Your task to perform on an android device: Go to wifi settings Image 0: 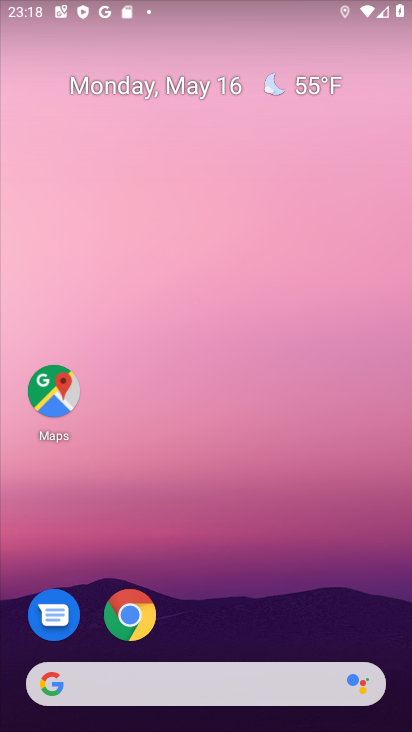
Step 0: drag from (166, 650) to (94, 38)
Your task to perform on an android device: Go to wifi settings Image 1: 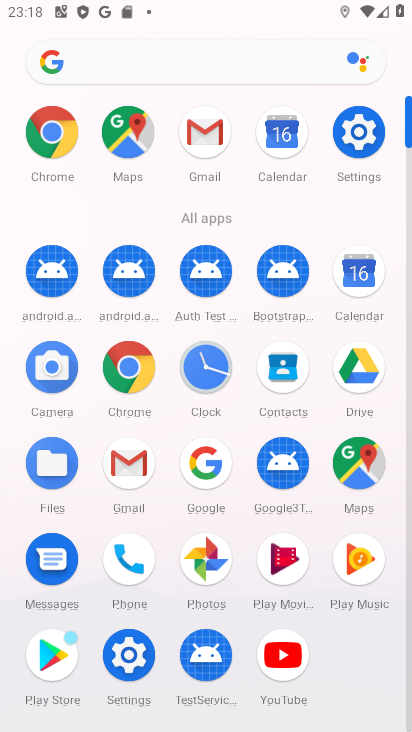
Step 1: click (349, 138)
Your task to perform on an android device: Go to wifi settings Image 2: 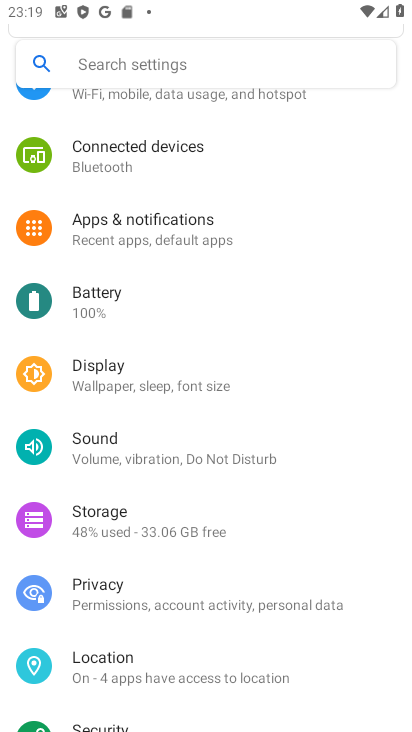
Step 2: drag from (238, 198) to (231, 402)
Your task to perform on an android device: Go to wifi settings Image 3: 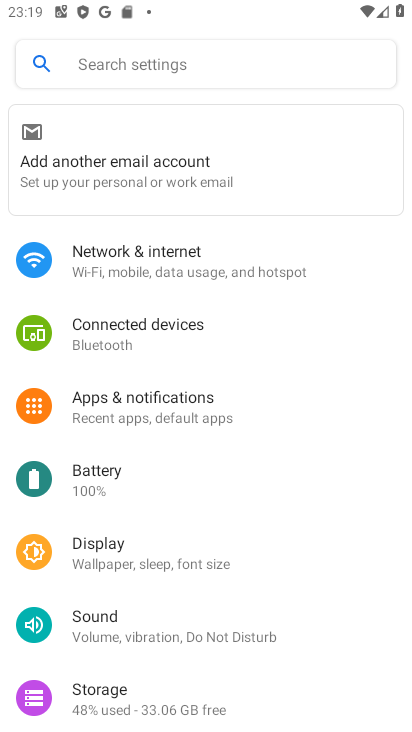
Step 3: click (155, 266)
Your task to perform on an android device: Go to wifi settings Image 4: 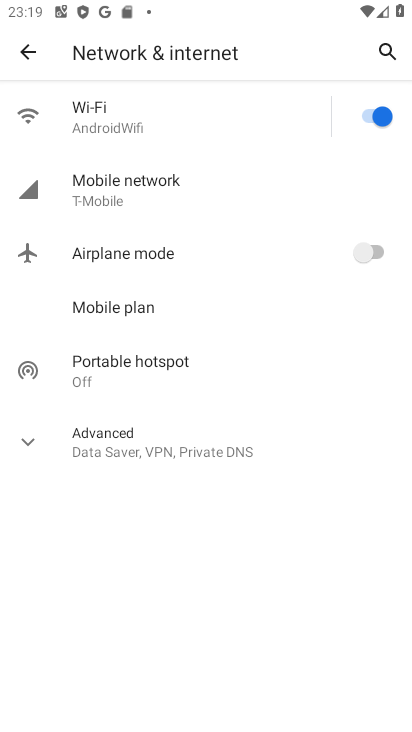
Step 4: click (108, 101)
Your task to perform on an android device: Go to wifi settings Image 5: 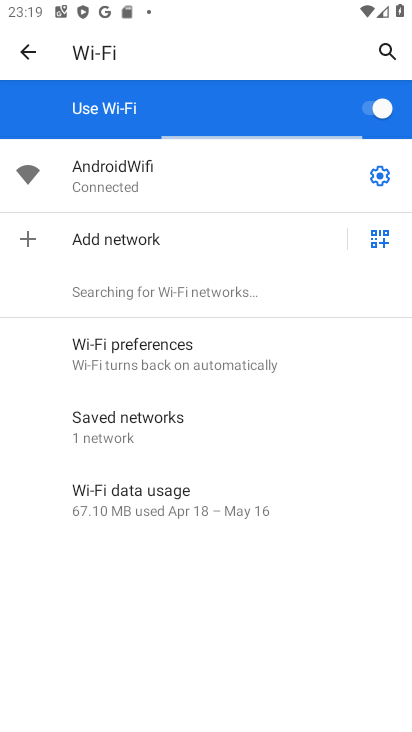
Step 5: task complete